Your task to perform on an android device: Open eBay Image 0: 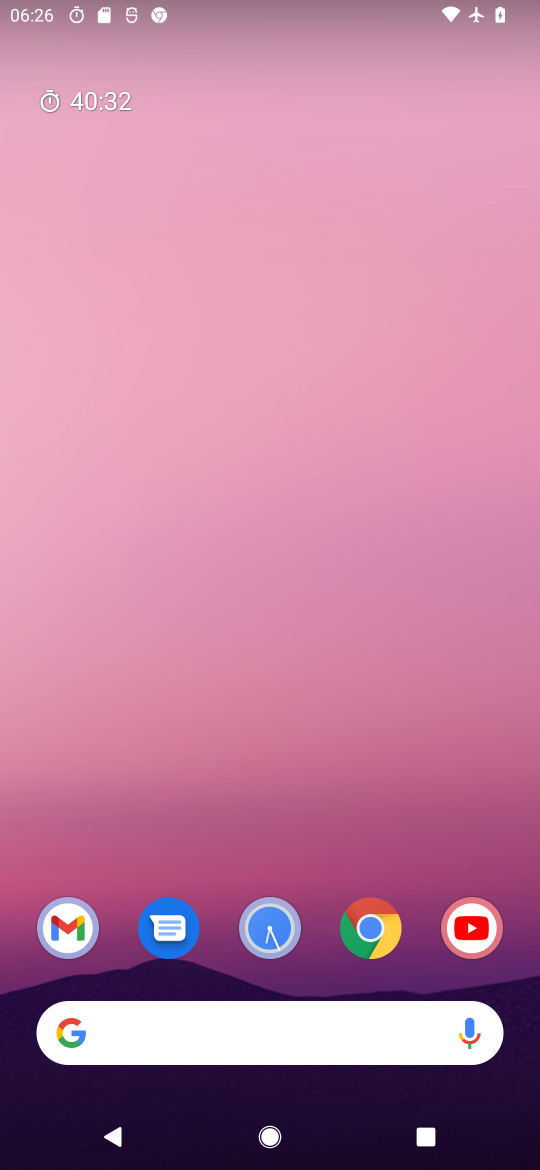
Step 0: click (353, 964)
Your task to perform on an android device: Open eBay Image 1: 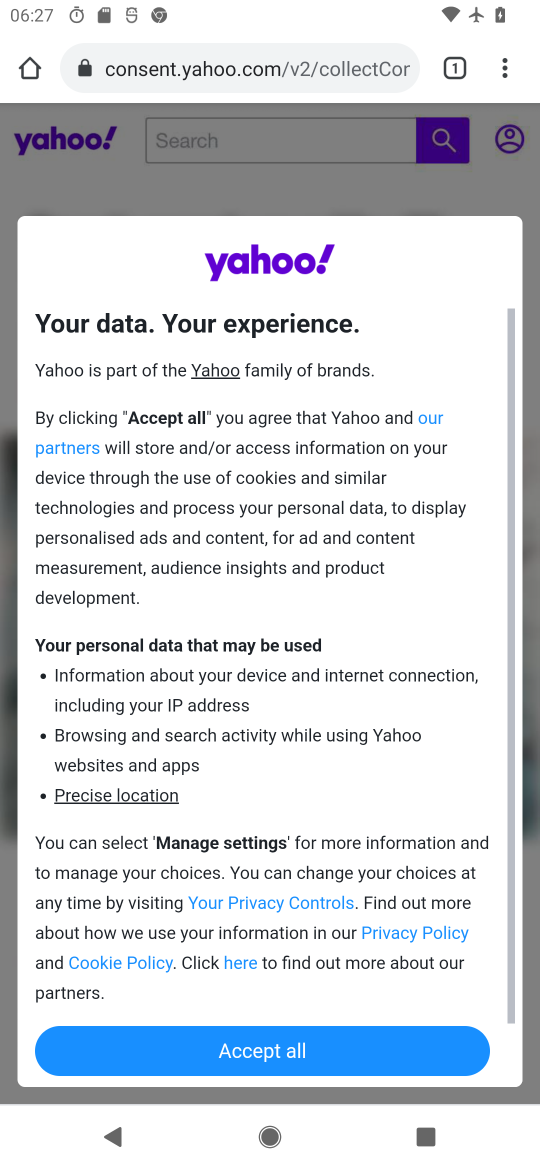
Step 1: click (259, 60)
Your task to perform on an android device: Open eBay Image 2: 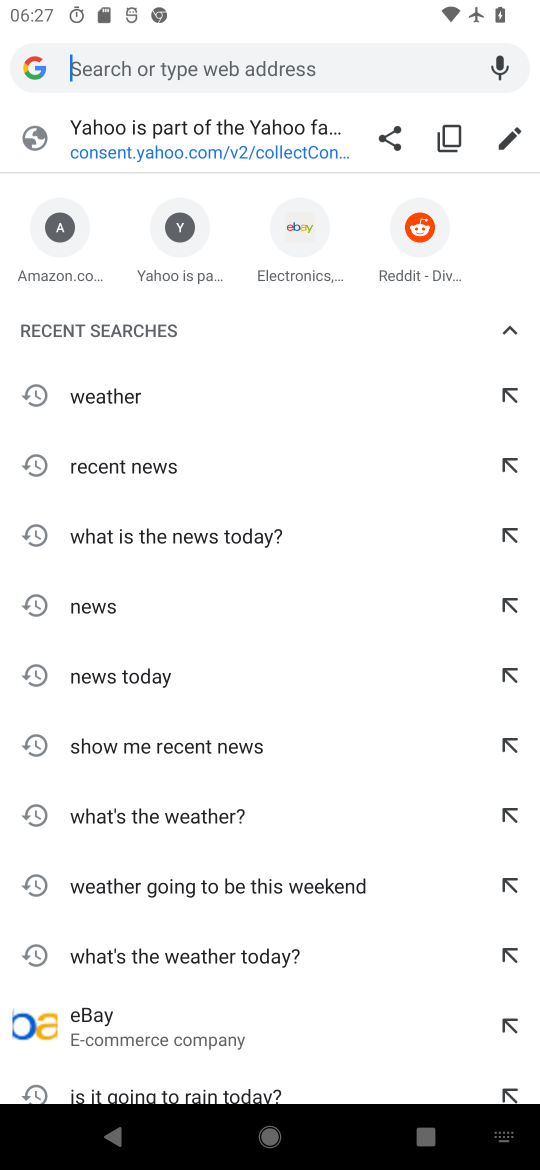
Step 2: type "eBay"
Your task to perform on an android device: Open eBay Image 3: 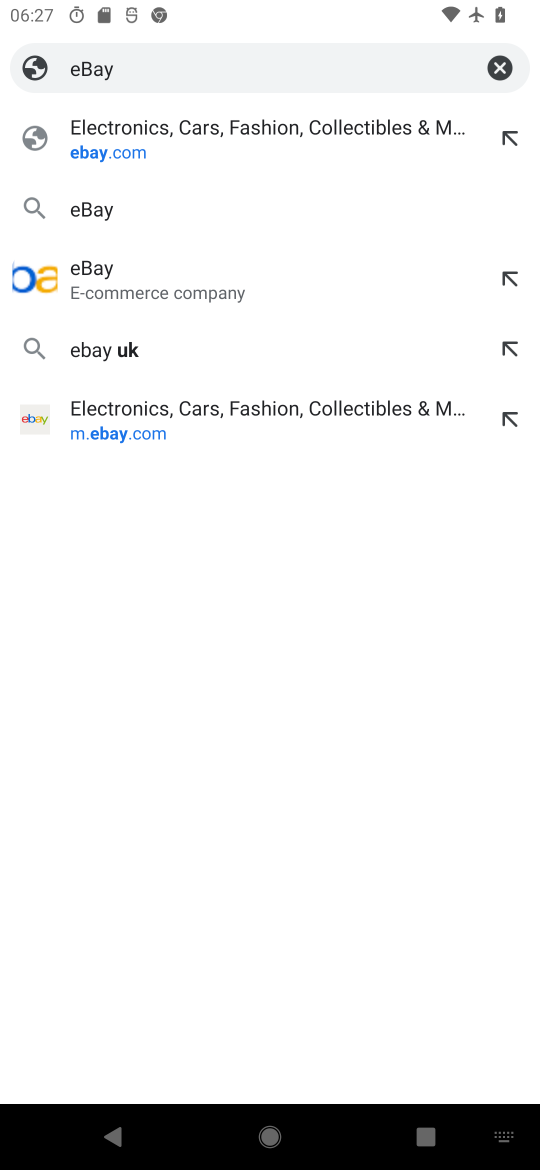
Step 3: click (133, 120)
Your task to perform on an android device: Open eBay Image 4: 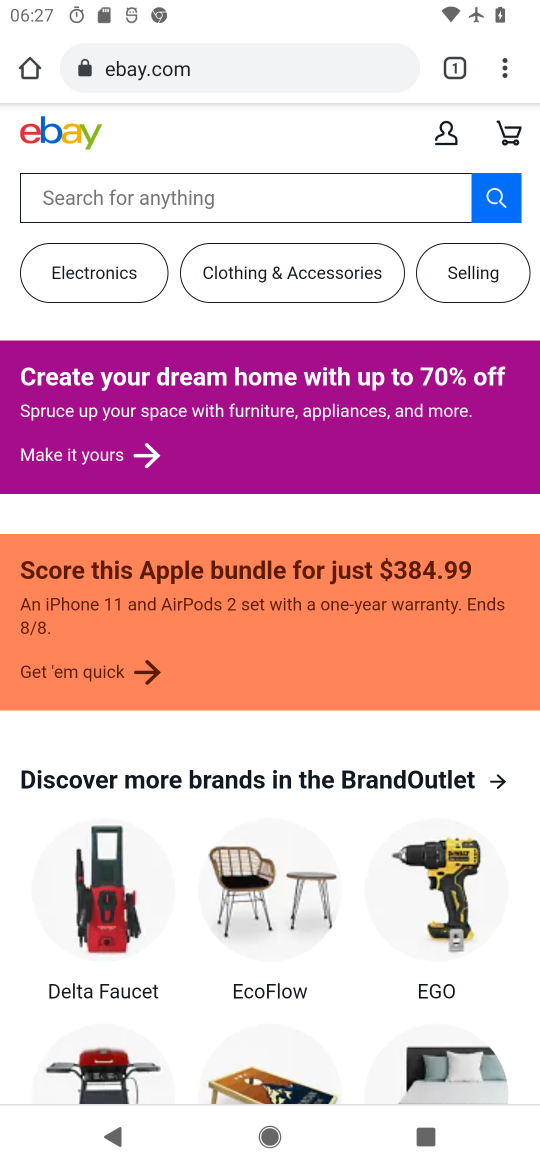
Step 4: task complete